Your task to perform on an android device: Clear the cart on amazon. Search for "logitech g pro" on amazon, select the first entry, and add it to the cart. Image 0: 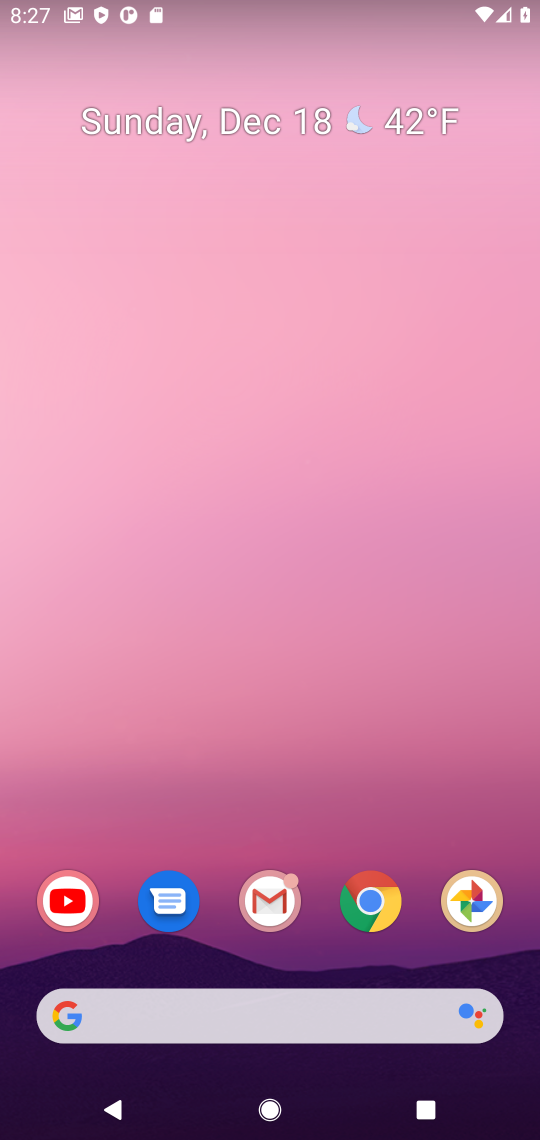
Step 0: click (362, 906)
Your task to perform on an android device: Clear the cart on amazon. Search for "logitech g pro" on amazon, select the first entry, and add it to the cart. Image 1: 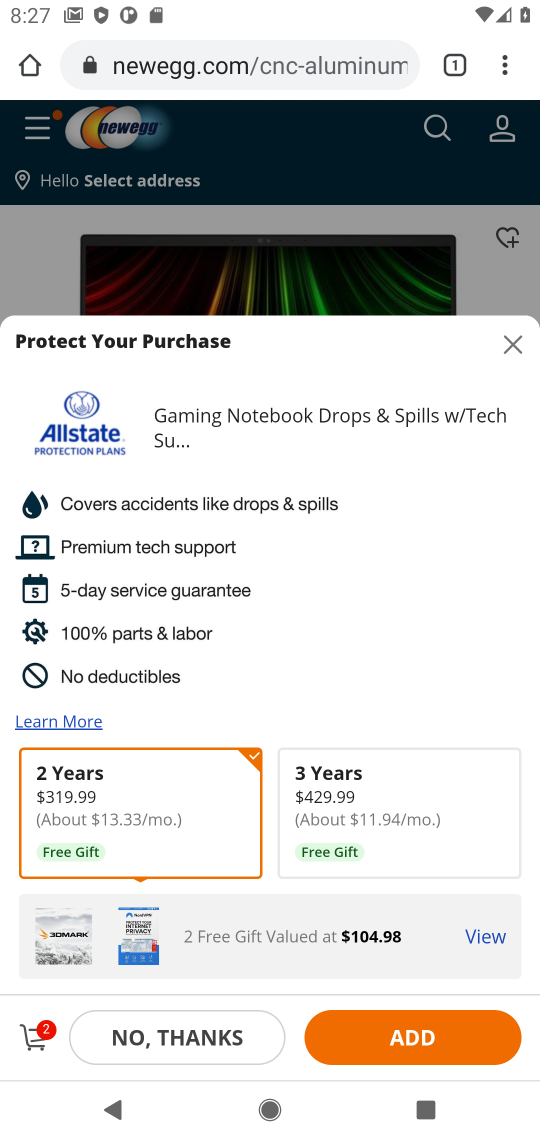
Step 1: click (199, 61)
Your task to perform on an android device: Clear the cart on amazon. Search for "logitech g pro" on amazon, select the first entry, and add it to the cart. Image 2: 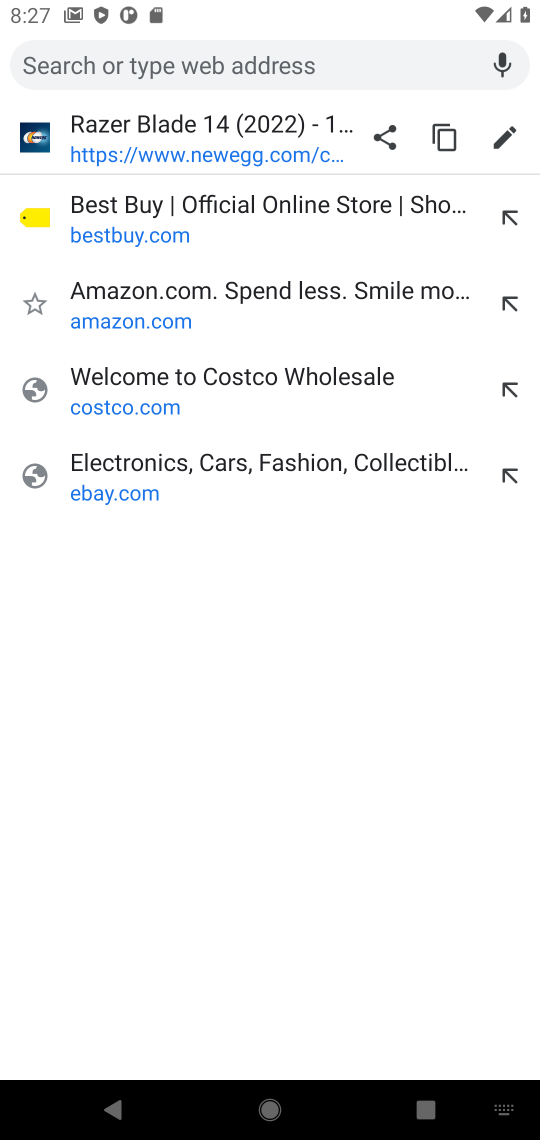
Step 2: type "a"
Your task to perform on an android device: Clear the cart on amazon. Search for "logitech g pro" on amazon, select the first entry, and add it to the cart. Image 3: 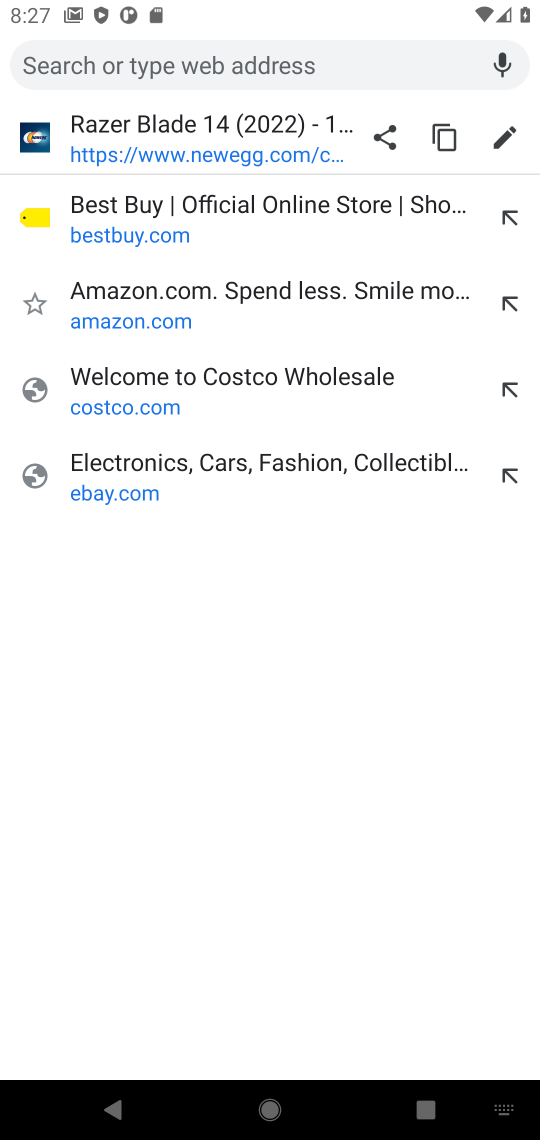
Step 3: click (169, 309)
Your task to perform on an android device: Clear the cart on amazon. Search for "logitech g pro" on amazon, select the first entry, and add it to the cart. Image 4: 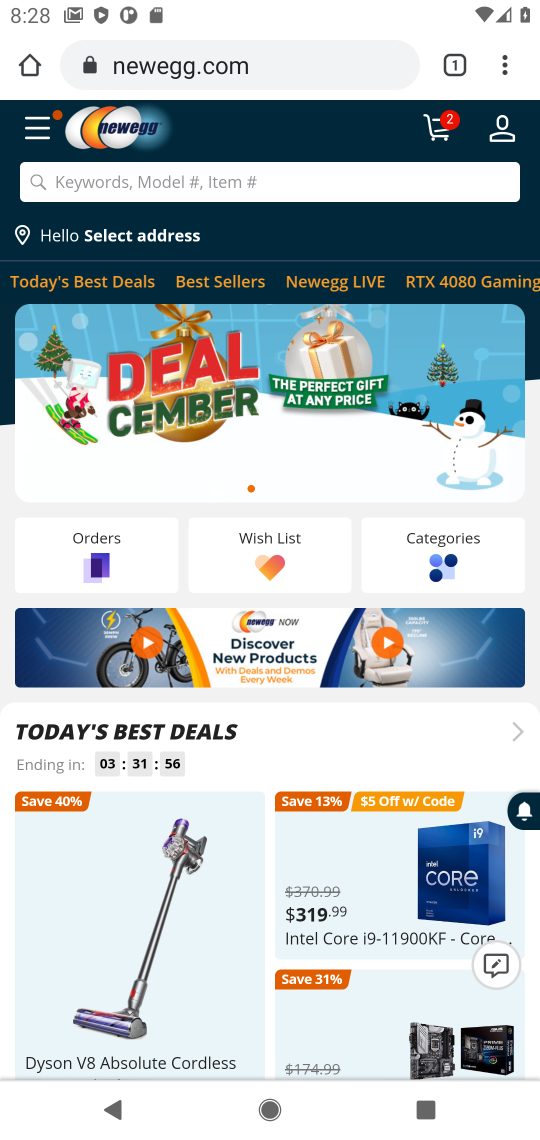
Step 4: click (273, 72)
Your task to perform on an android device: Clear the cart on amazon. Search for "logitech g pro" on amazon, select the first entry, and add it to the cart. Image 5: 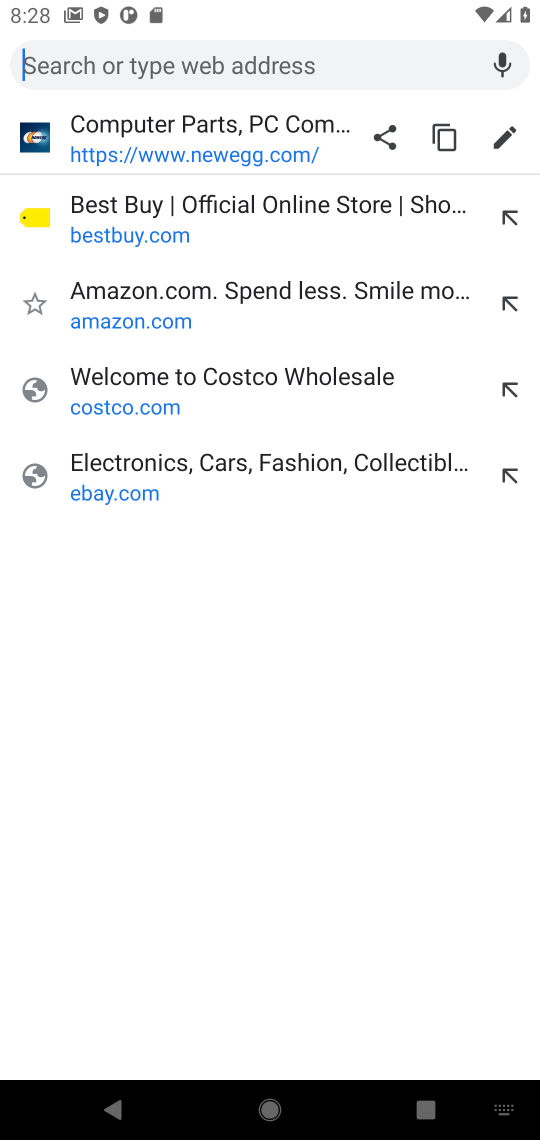
Step 5: click (194, 312)
Your task to perform on an android device: Clear the cart on amazon. Search for "logitech g pro" on amazon, select the first entry, and add it to the cart. Image 6: 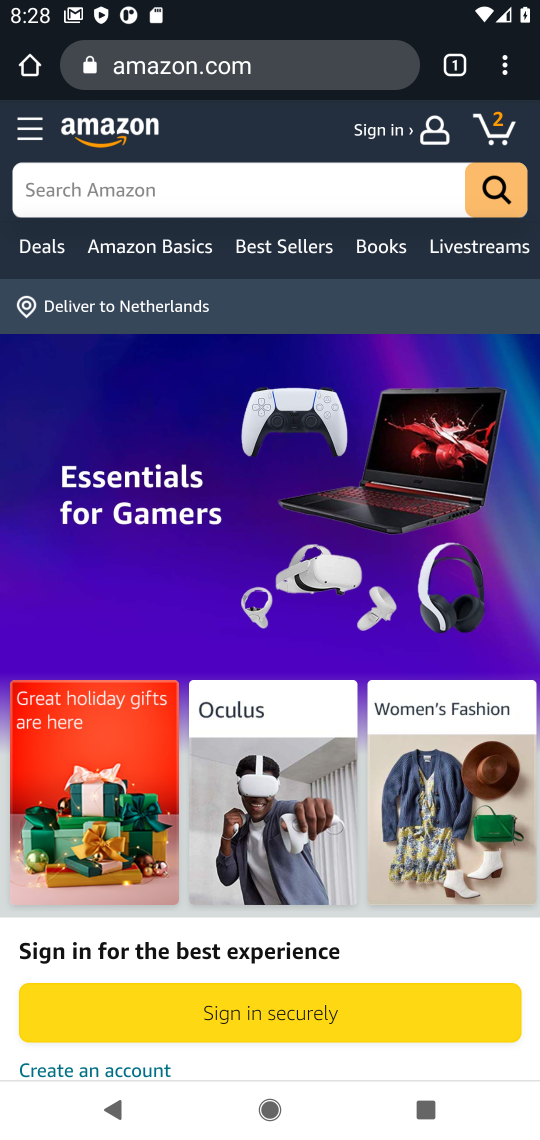
Step 6: click (114, 191)
Your task to perform on an android device: Clear the cart on amazon. Search for "logitech g pro" on amazon, select the first entry, and add it to the cart. Image 7: 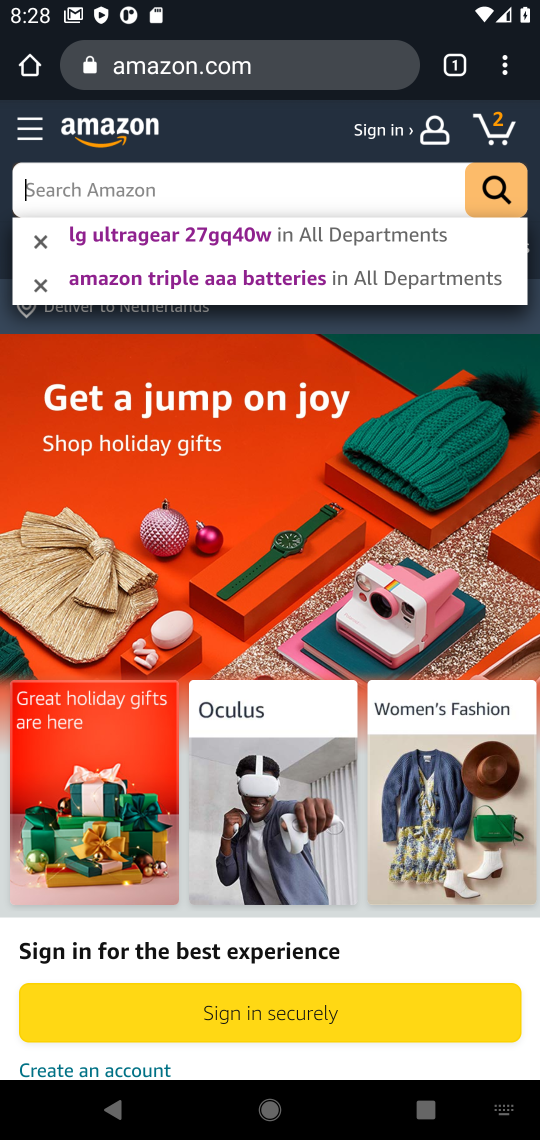
Step 7: type "logitech g pro"
Your task to perform on an android device: Clear the cart on amazon. Search for "logitech g pro" on amazon, select the first entry, and add it to the cart. Image 8: 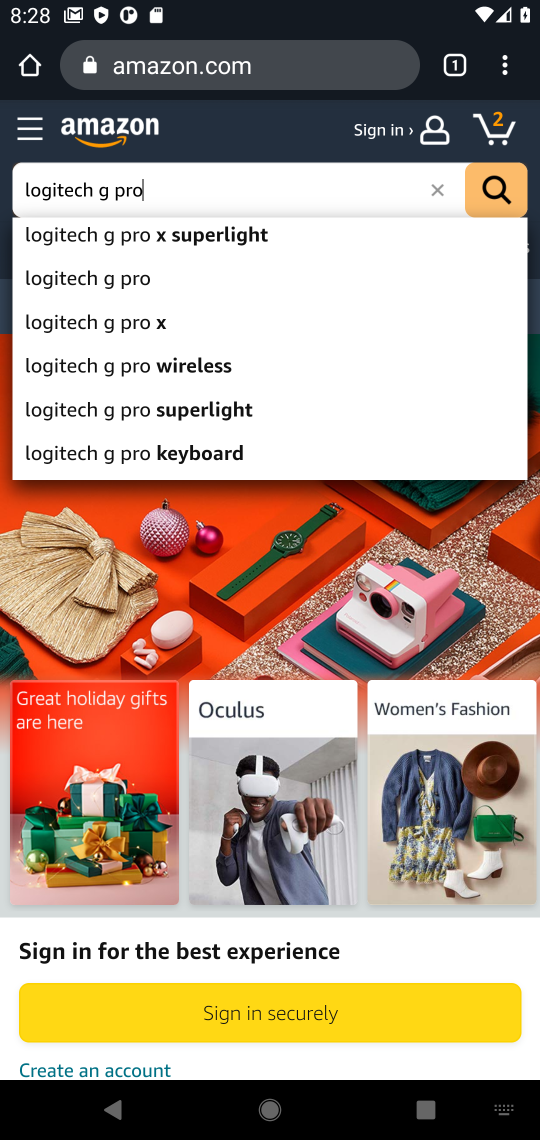
Step 8: click (487, 203)
Your task to perform on an android device: Clear the cart on amazon. Search for "logitech g pro" on amazon, select the first entry, and add it to the cart. Image 9: 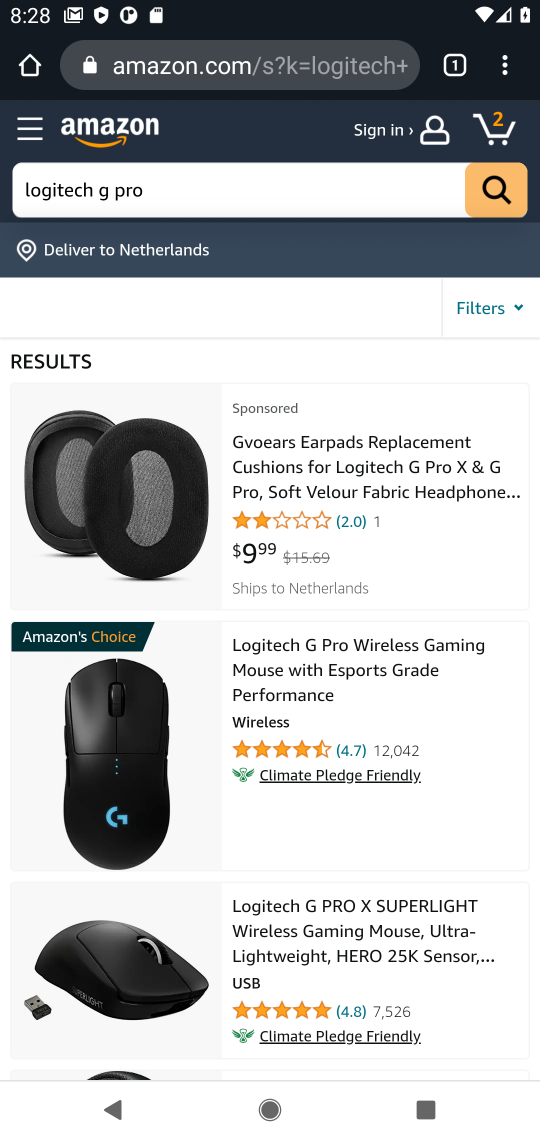
Step 9: click (229, 716)
Your task to perform on an android device: Clear the cart on amazon. Search for "logitech g pro" on amazon, select the first entry, and add it to the cart. Image 10: 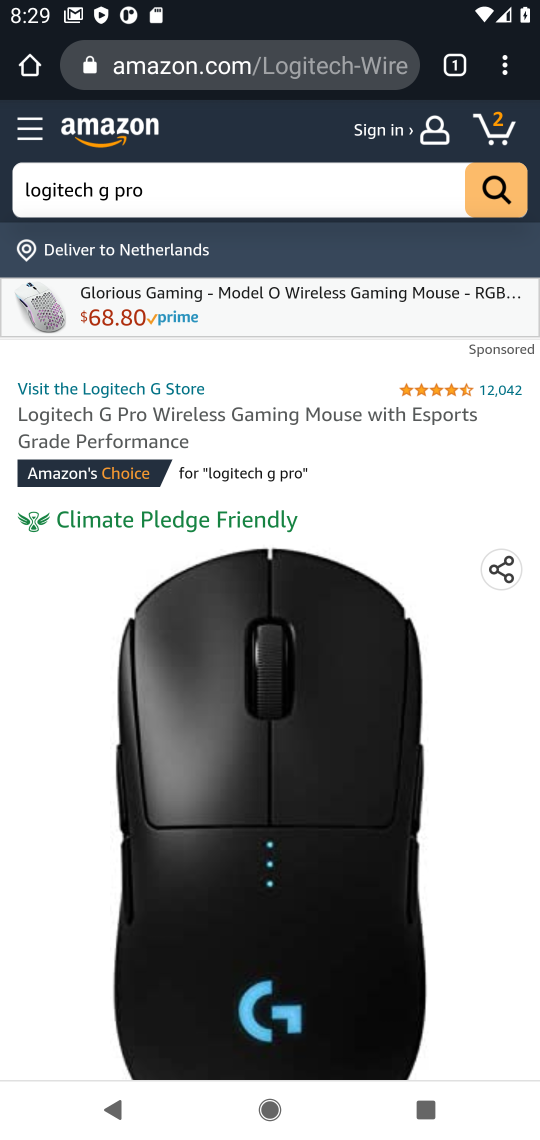
Step 10: drag from (248, 850) to (212, 317)
Your task to perform on an android device: Clear the cart on amazon. Search for "logitech g pro" on amazon, select the first entry, and add it to the cart. Image 11: 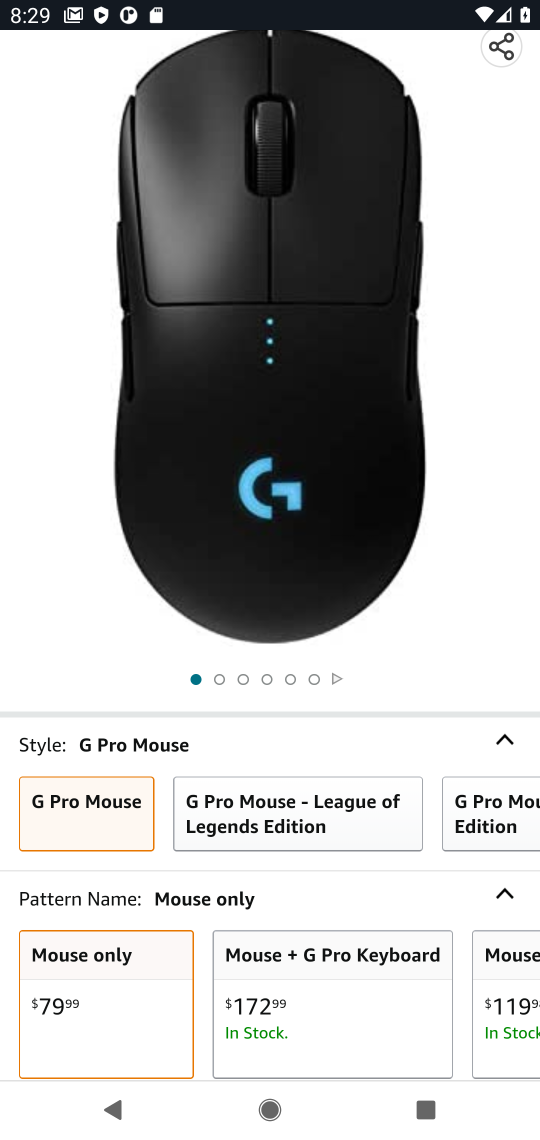
Step 11: drag from (237, 867) to (246, 334)
Your task to perform on an android device: Clear the cart on amazon. Search for "logitech g pro" on amazon, select the first entry, and add it to the cart. Image 12: 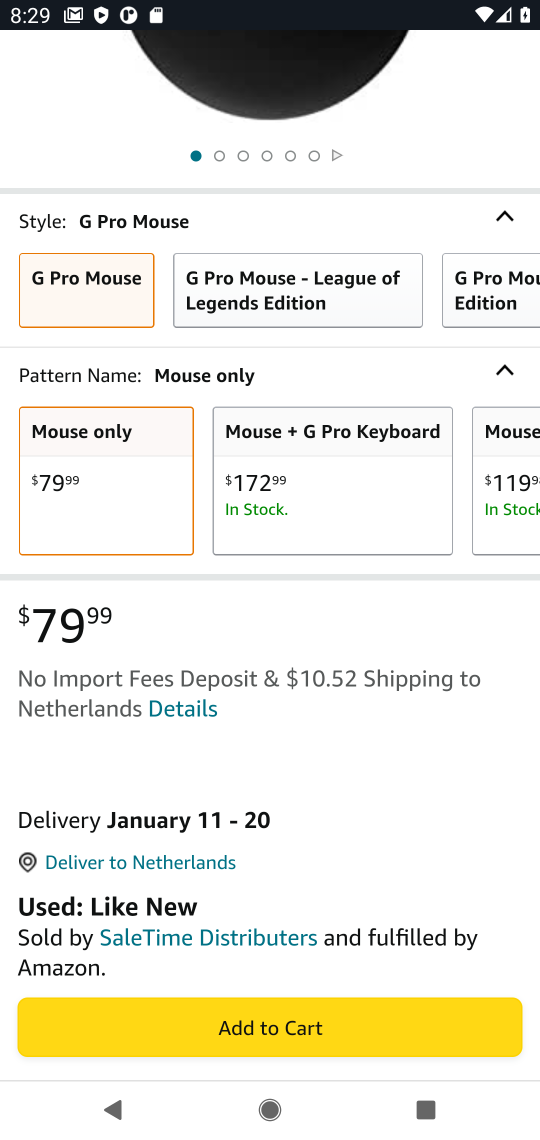
Step 12: click (314, 1019)
Your task to perform on an android device: Clear the cart on amazon. Search for "logitech g pro" on amazon, select the first entry, and add it to the cart. Image 13: 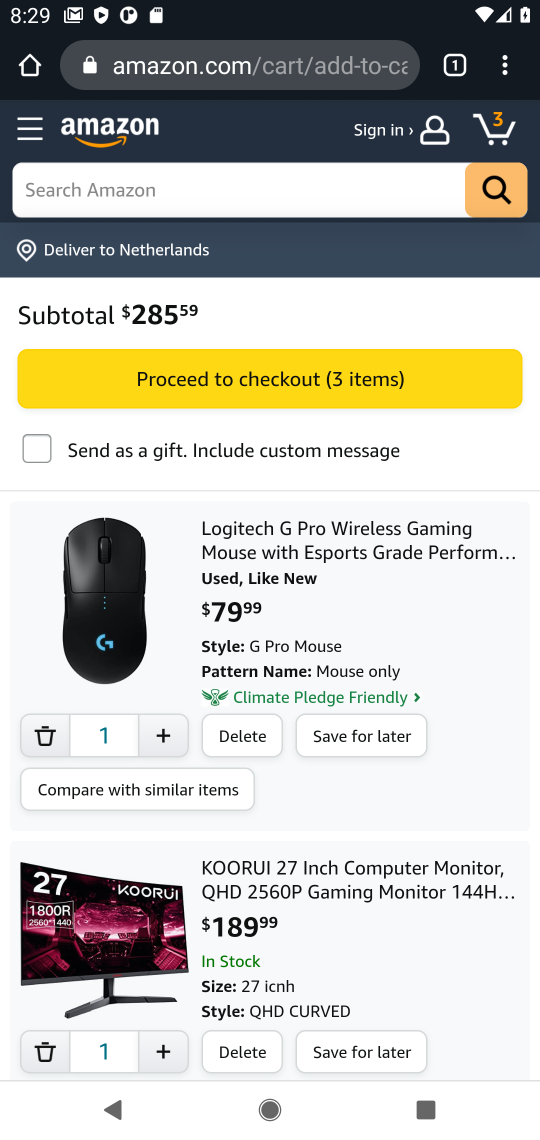
Step 13: task complete